Your task to perform on an android device: Is it going to rain tomorrow? Image 0: 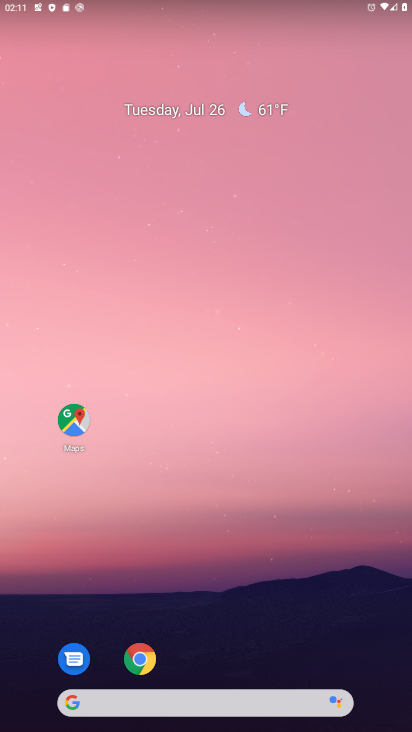
Step 0: drag from (284, 600) to (197, 125)
Your task to perform on an android device: Is it going to rain tomorrow? Image 1: 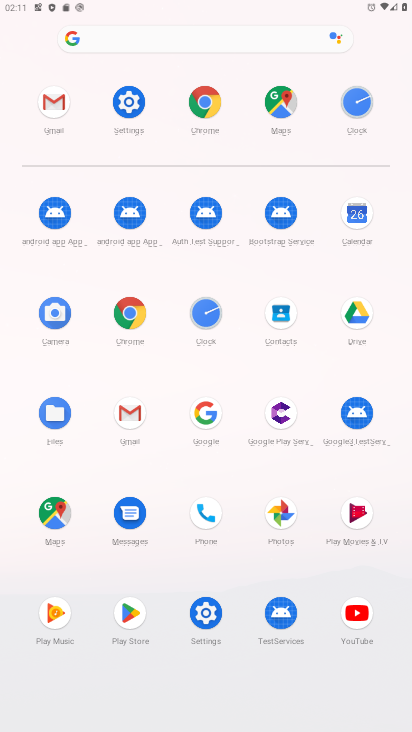
Step 1: click (202, 103)
Your task to perform on an android device: Is it going to rain tomorrow? Image 2: 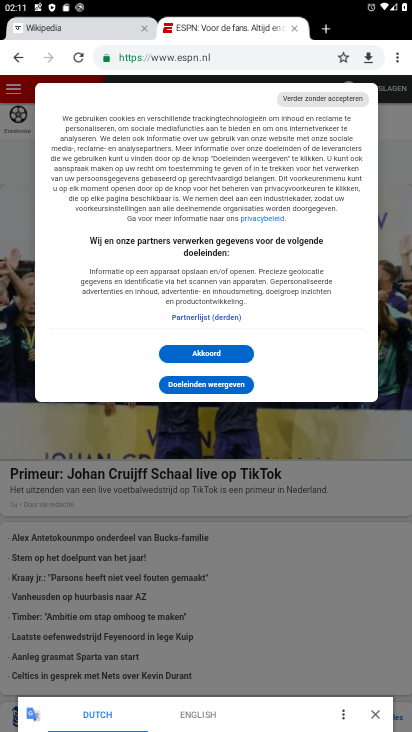
Step 2: click (191, 51)
Your task to perform on an android device: Is it going to rain tomorrow? Image 3: 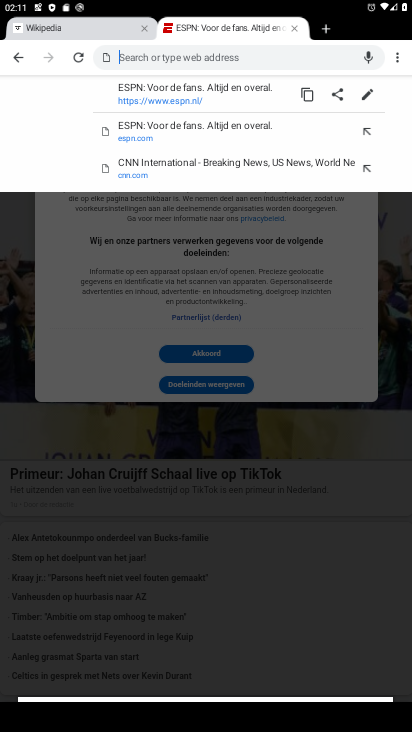
Step 3: type "weather"
Your task to perform on an android device: Is it going to rain tomorrow? Image 4: 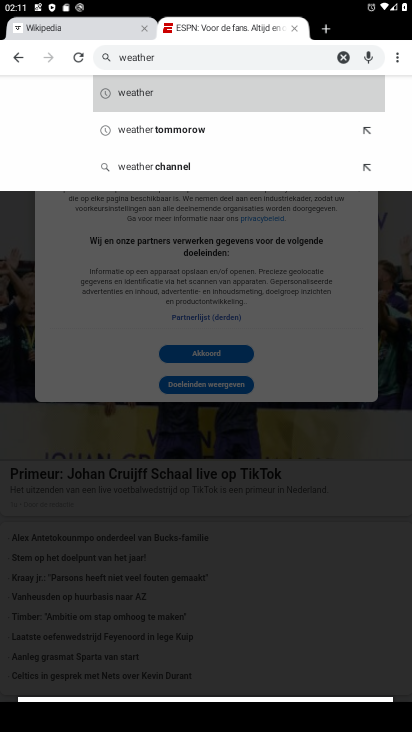
Step 4: click (144, 94)
Your task to perform on an android device: Is it going to rain tomorrow? Image 5: 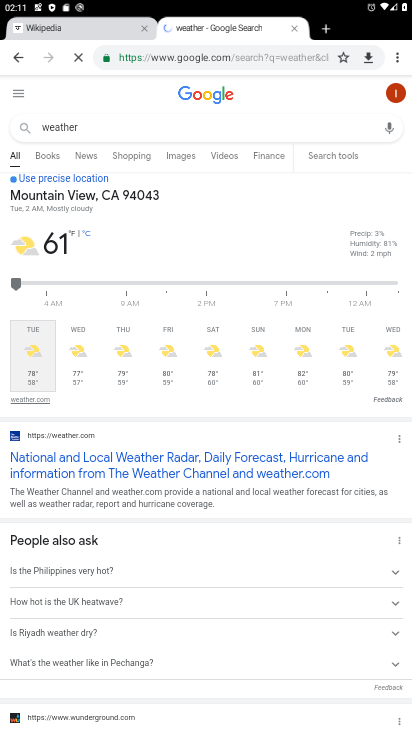
Step 5: click (80, 337)
Your task to perform on an android device: Is it going to rain tomorrow? Image 6: 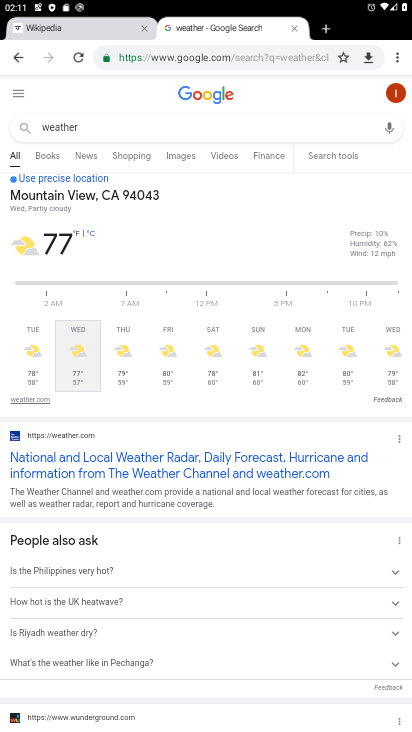
Step 6: task complete